Your task to perform on an android device: Do I have any events tomorrow? Image 0: 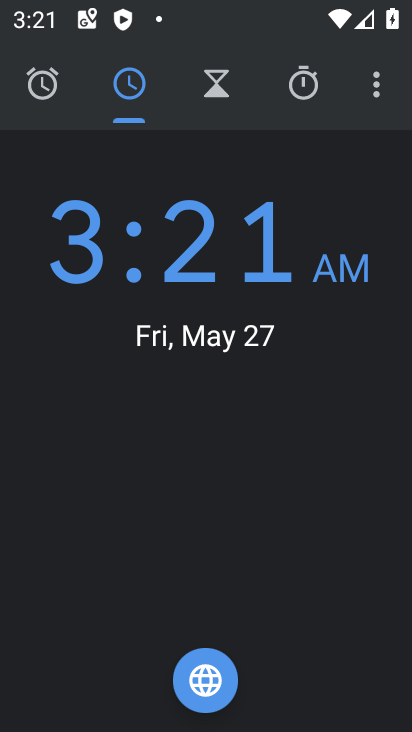
Step 0: press home button
Your task to perform on an android device: Do I have any events tomorrow? Image 1: 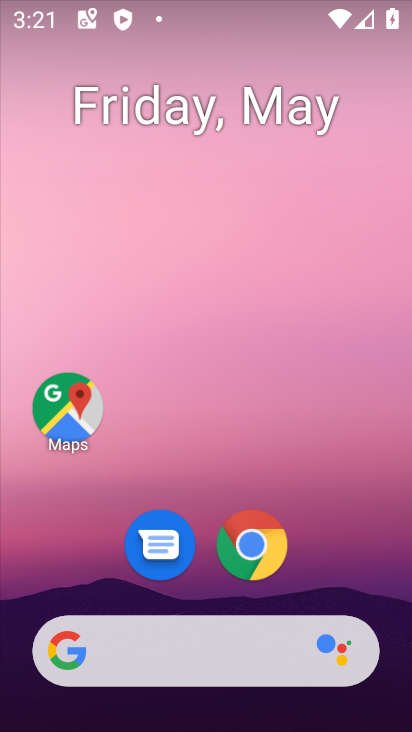
Step 1: drag from (224, 654) to (325, 180)
Your task to perform on an android device: Do I have any events tomorrow? Image 2: 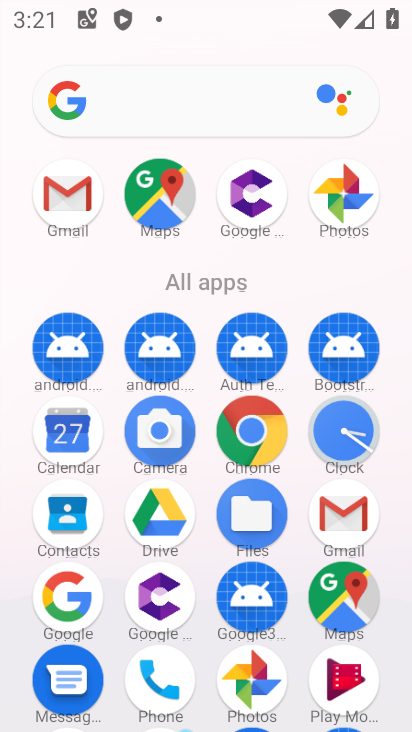
Step 2: click (71, 440)
Your task to perform on an android device: Do I have any events tomorrow? Image 3: 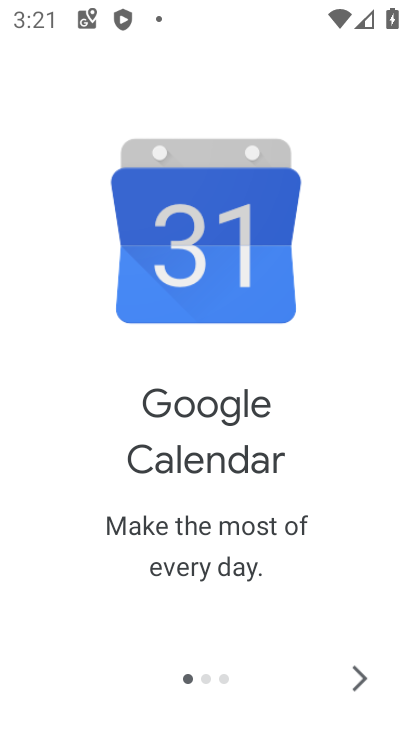
Step 3: click (363, 677)
Your task to perform on an android device: Do I have any events tomorrow? Image 4: 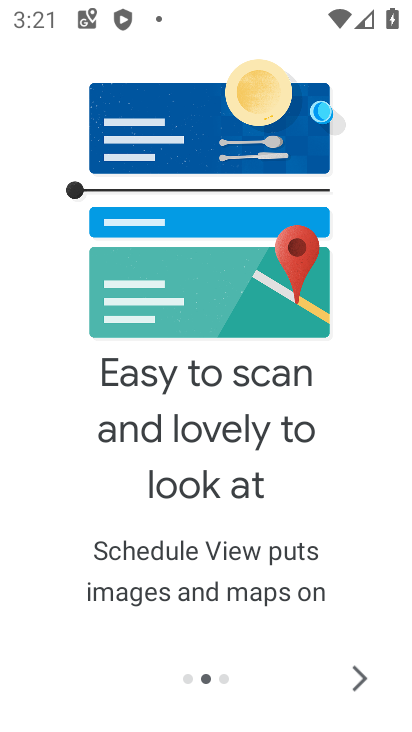
Step 4: click (362, 677)
Your task to perform on an android device: Do I have any events tomorrow? Image 5: 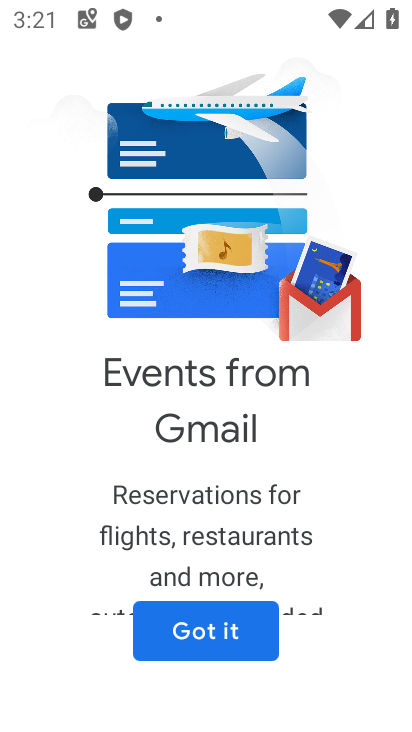
Step 5: click (224, 634)
Your task to perform on an android device: Do I have any events tomorrow? Image 6: 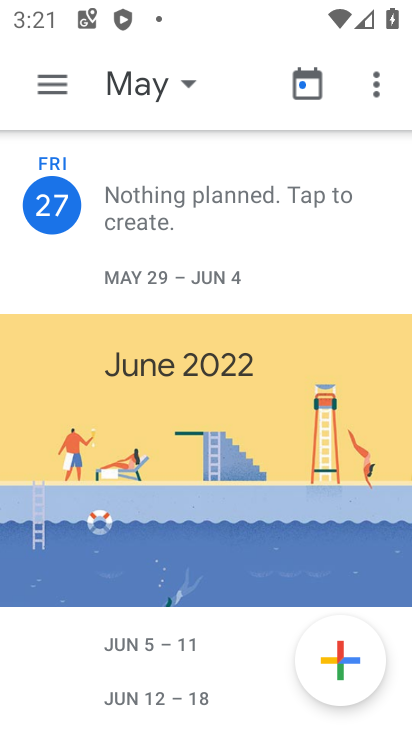
Step 6: click (145, 87)
Your task to perform on an android device: Do I have any events tomorrow? Image 7: 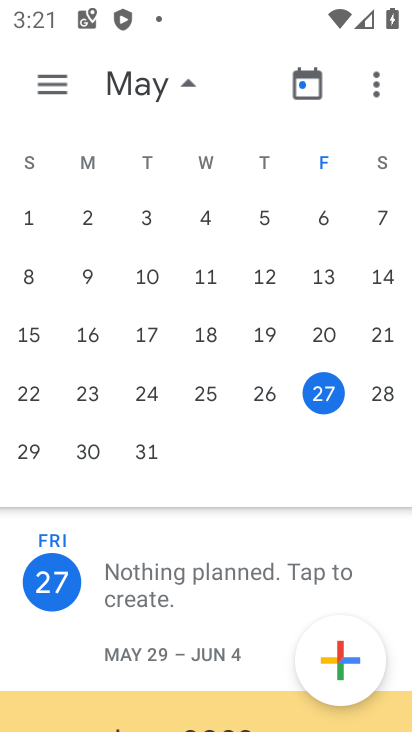
Step 7: click (321, 390)
Your task to perform on an android device: Do I have any events tomorrow? Image 8: 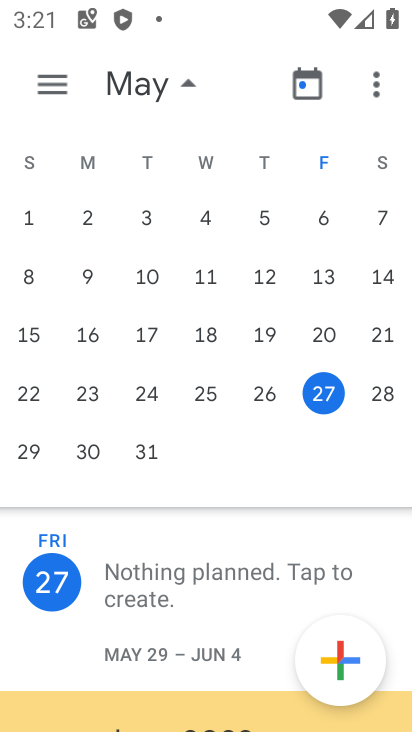
Step 8: click (59, 79)
Your task to perform on an android device: Do I have any events tomorrow? Image 9: 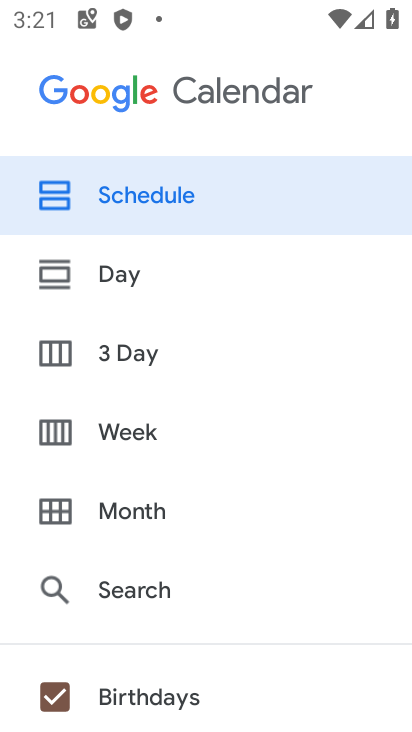
Step 9: click (149, 199)
Your task to perform on an android device: Do I have any events tomorrow? Image 10: 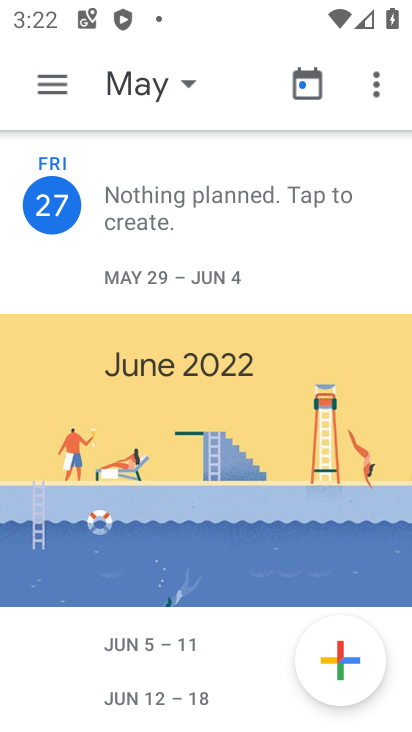
Step 10: task complete